Your task to perform on an android device: find which apps use the phone's location Image 0: 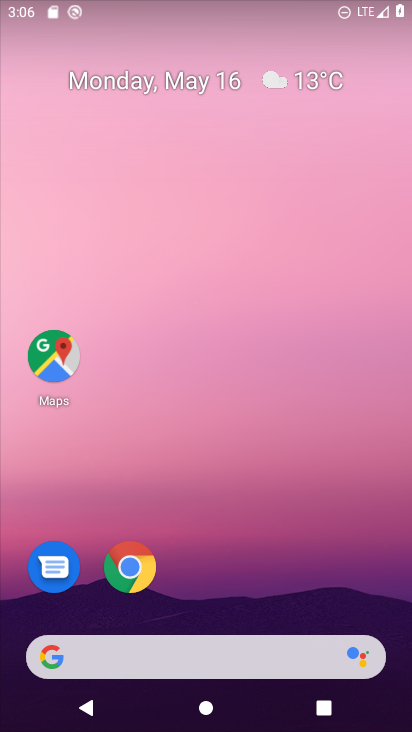
Step 0: drag from (322, 615) to (218, 71)
Your task to perform on an android device: find which apps use the phone's location Image 1: 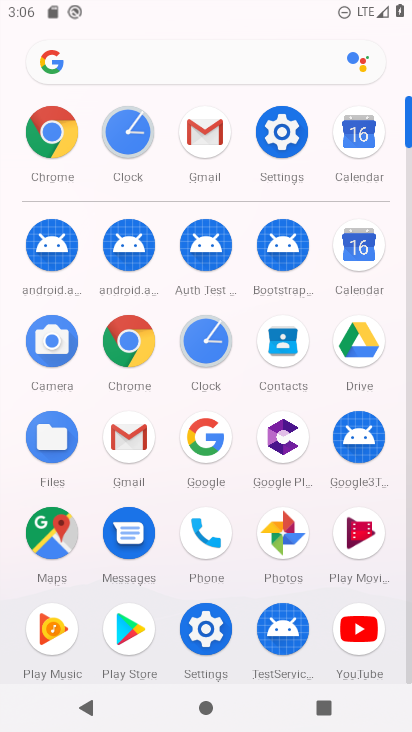
Step 1: click (200, 641)
Your task to perform on an android device: find which apps use the phone's location Image 2: 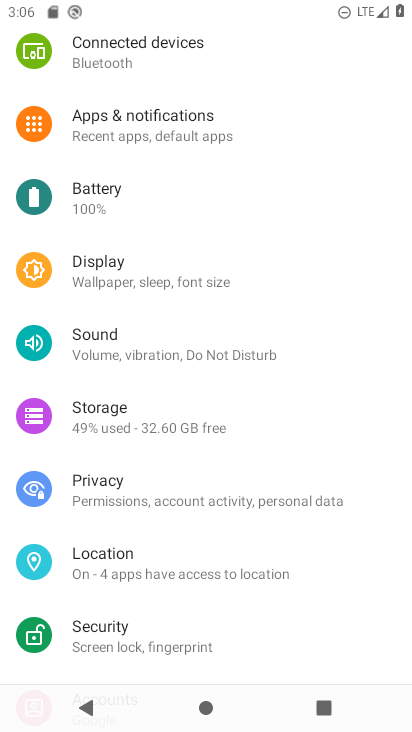
Step 2: click (104, 557)
Your task to perform on an android device: find which apps use the phone's location Image 3: 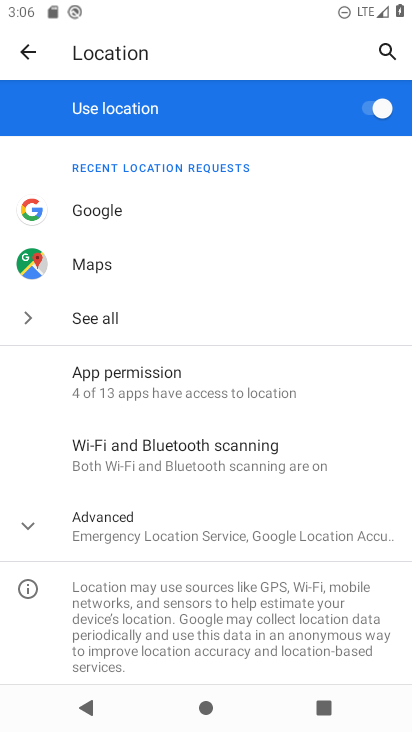
Step 3: click (142, 377)
Your task to perform on an android device: find which apps use the phone's location Image 4: 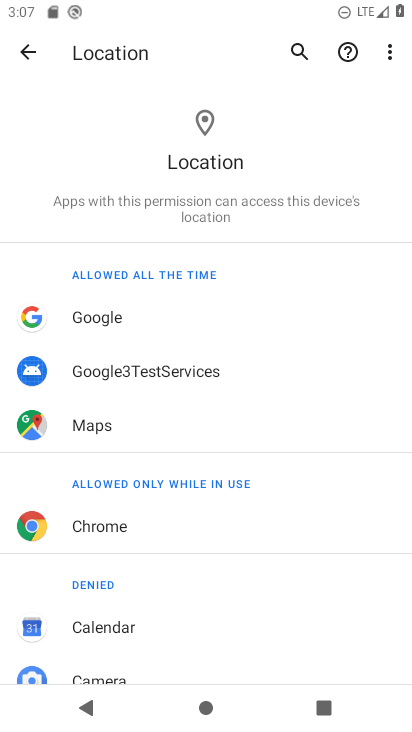
Step 4: task complete